Your task to perform on an android device: toggle airplane mode Image 0: 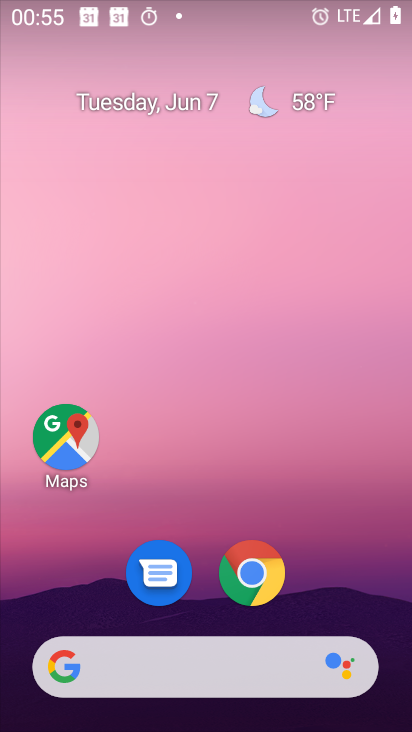
Step 0: press home button
Your task to perform on an android device: toggle airplane mode Image 1: 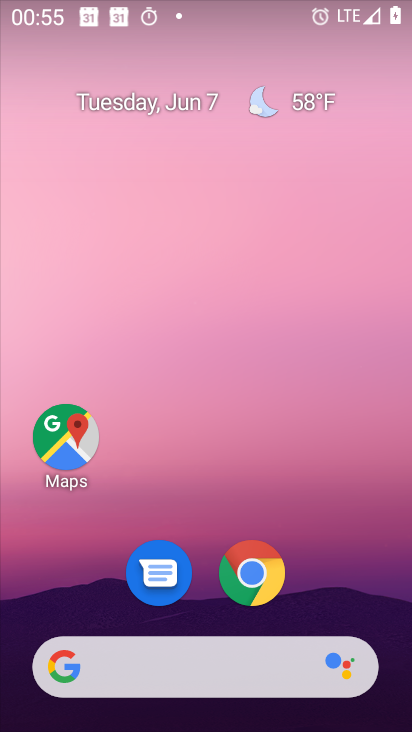
Step 1: drag from (368, 37) to (344, 487)
Your task to perform on an android device: toggle airplane mode Image 2: 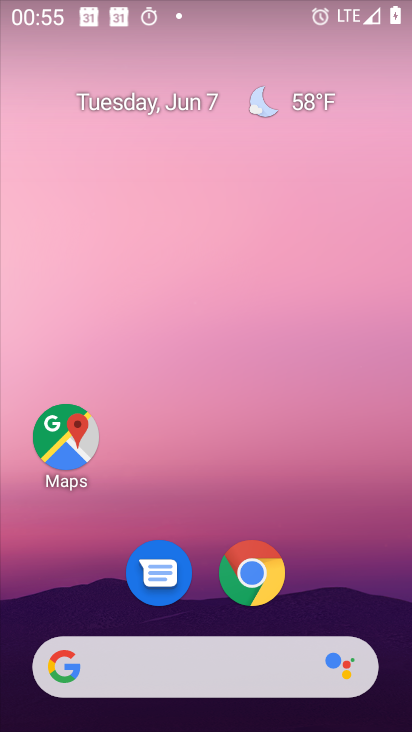
Step 2: drag from (345, 10) to (249, 468)
Your task to perform on an android device: toggle airplane mode Image 3: 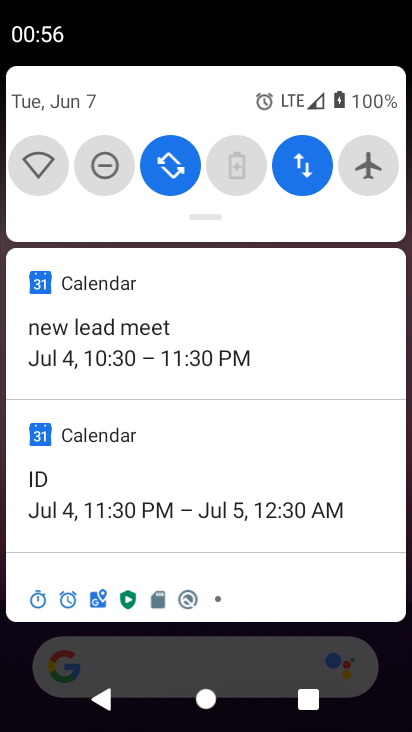
Step 3: click (378, 183)
Your task to perform on an android device: toggle airplane mode Image 4: 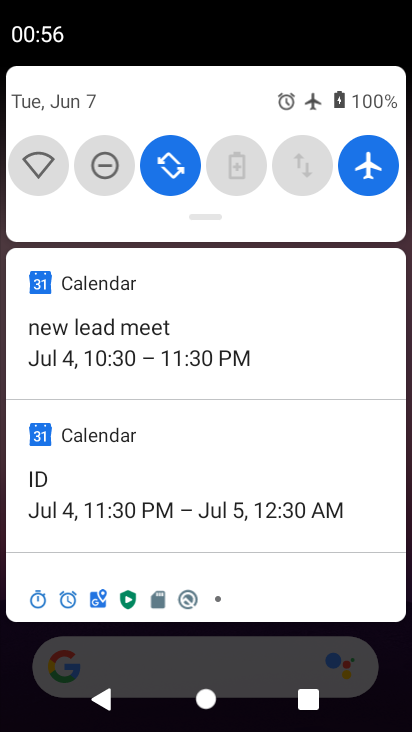
Step 4: task complete